Your task to perform on an android device: Open eBay Image 0: 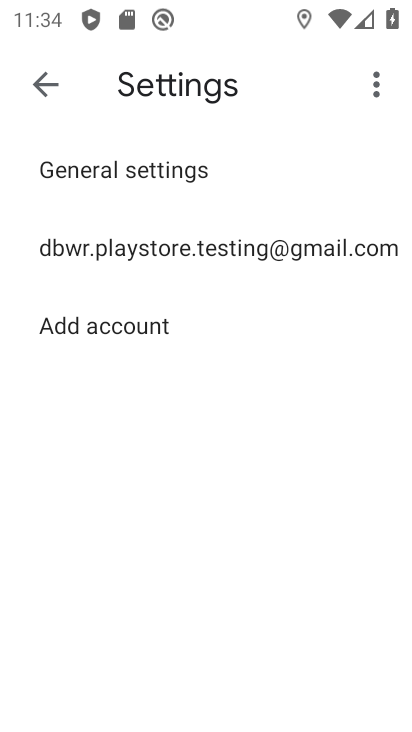
Step 0: press home button
Your task to perform on an android device: Open eBay Image 1: 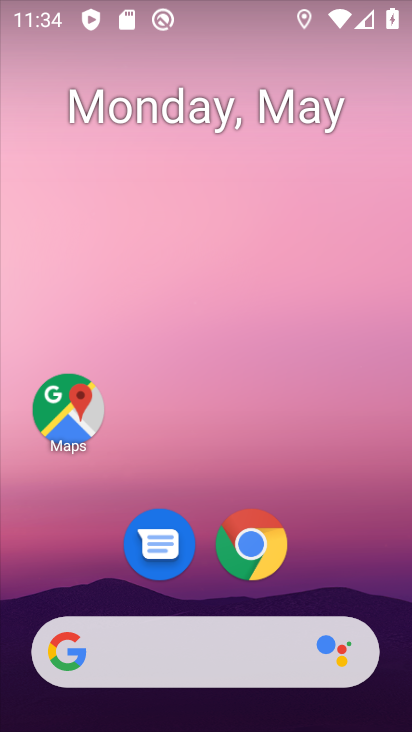
Step 1: click (218, 663)
Your task to perform on an android device: Open eBay Image 2: 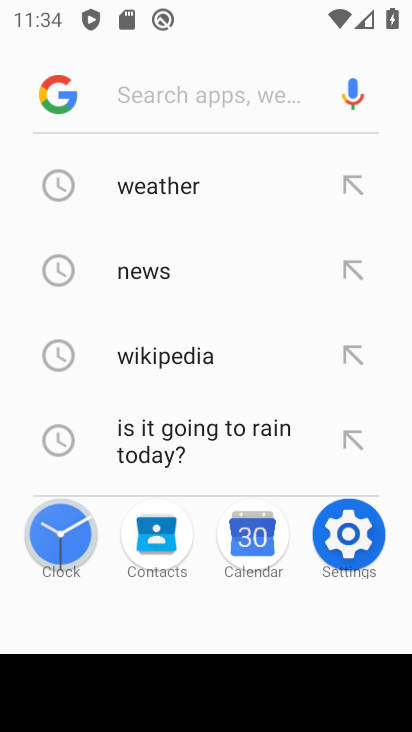
Step 2: type "ebay"
Your task to perform on an android device: Open eBay Image 3: 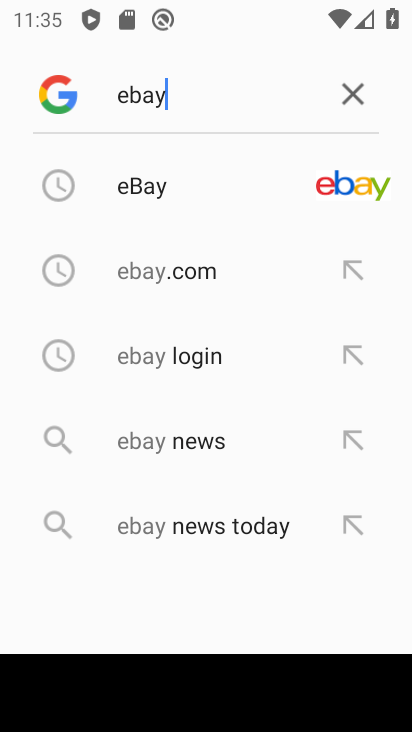
Step 3: click (149, 172)
Your task to perform on an android device: Open eBay Image 4: 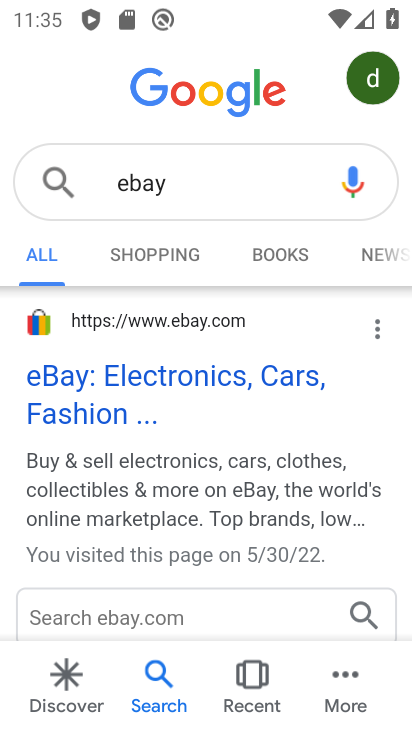
Step 4: task complete